Your task to perform on an android device: set default search engine in the chrome app Image 0: 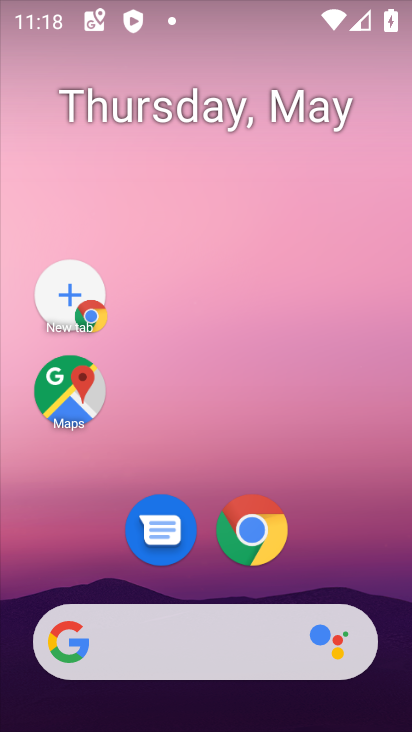
Step 0: drag from (300, 714) to (235, 207)
Your task to perform on an android device: set default search engine in the chrome app Image 1: 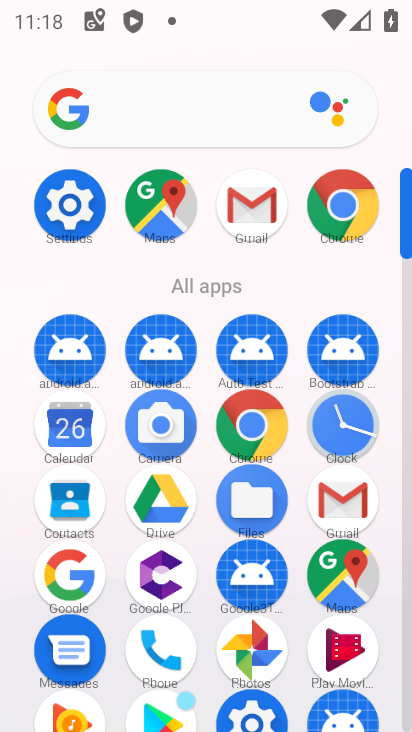
Step 1: click (328, 205)
Your task to perform on an android device: set default search engine in the chrome app Image 2: 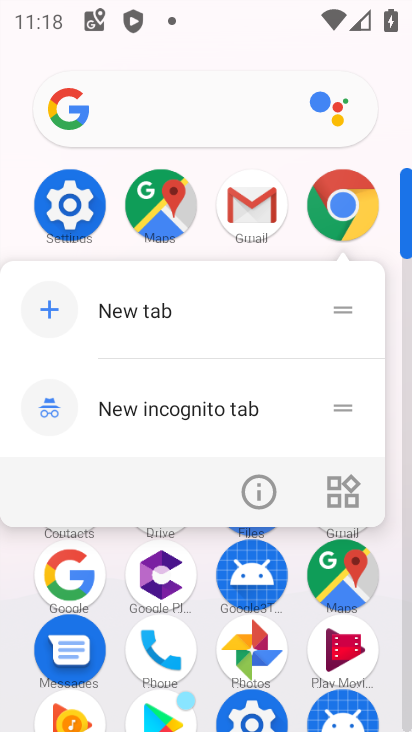
Step 2: click (316, 203)
Your task to perform on an android device: set default search engine in the chrome app Image 3: 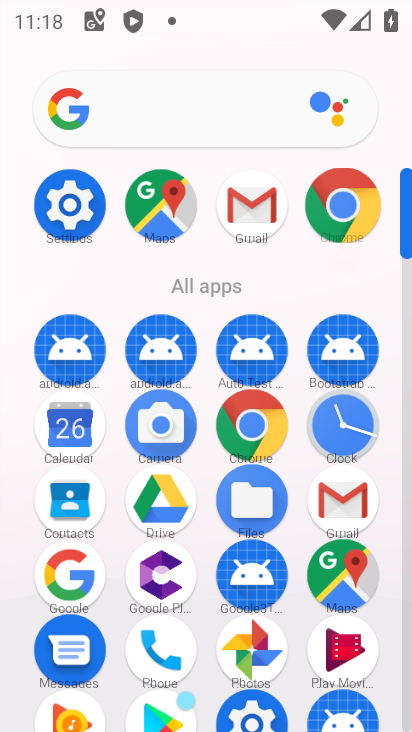
Step 3: click (330, 204)
Your task to perform on an android device: set default search engine in the chrome app Image 4: 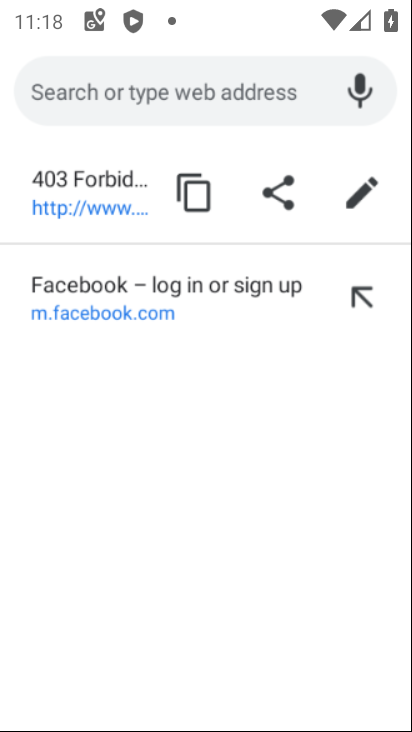
Step 4: click (330, 205)
Your task to perform on an android device: set default search engine in the chrome app Image 5: 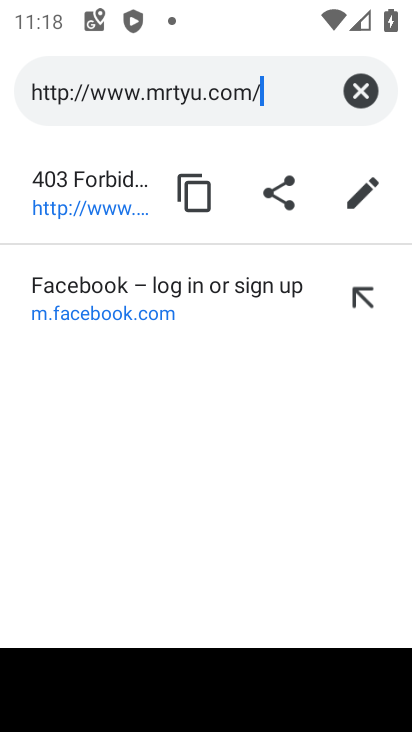
Step 5: press back button
Your task to perform on an android device: set default search engine in the chrome app Image 6: 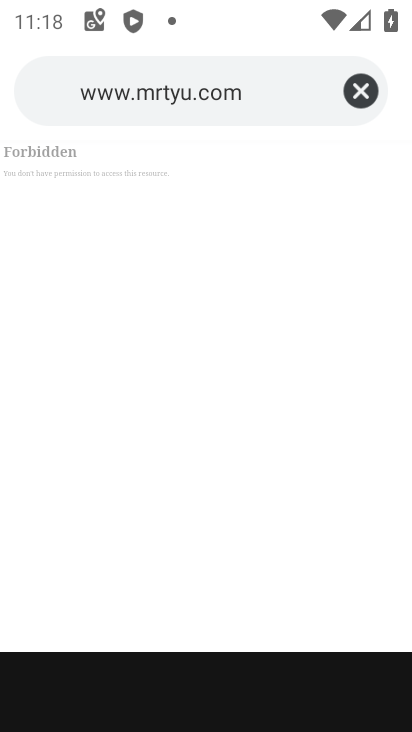
Step 6: press back button
Your task to perform on an android device: set default search engine in the chrome app Image 7: 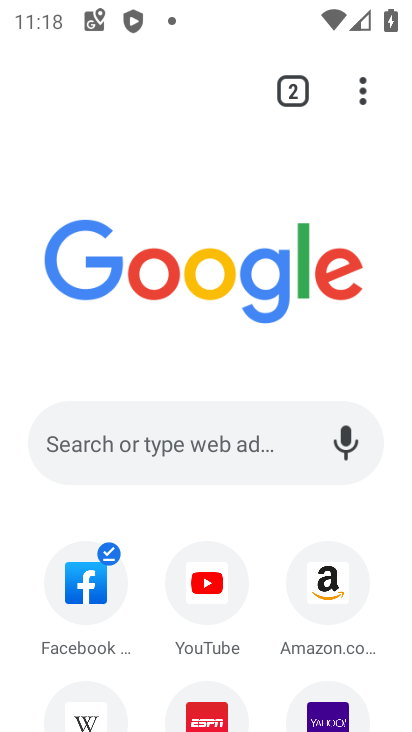
Step 7: drag from (353, 84) to (100, 546)
Your task to perform on an android device: set default search engine in the chrome app Image 8: 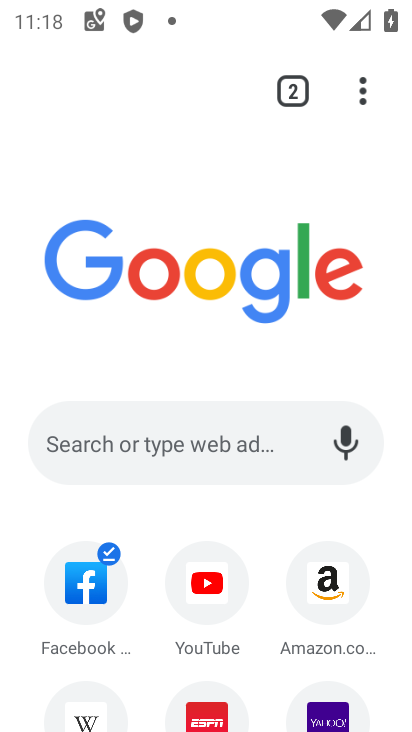
Step 8: click (96, 546)
Your task to perform on an android device: set default search engine in the chrome app Image 9: 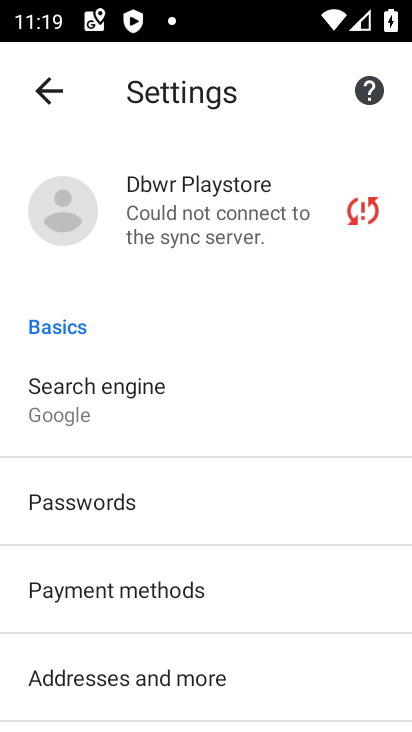
Step 9: click (63, 387)
Your task to perform on an android device: set default search engine in the chrome app Image 10: 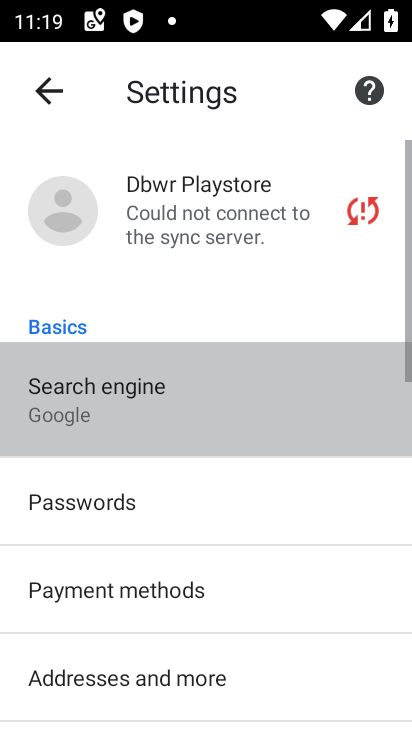
Step 10: click (74, 389)
Your task to perform on an android device: set default search engine in the chrome app Image 11: 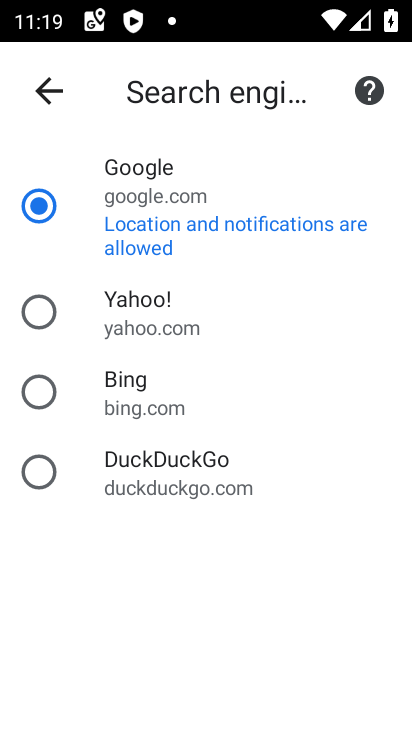
Step 11: drag from (77, 407) to (77, 596)
Your task to perform on an android device: set default search engine in the chrome app Image 12: 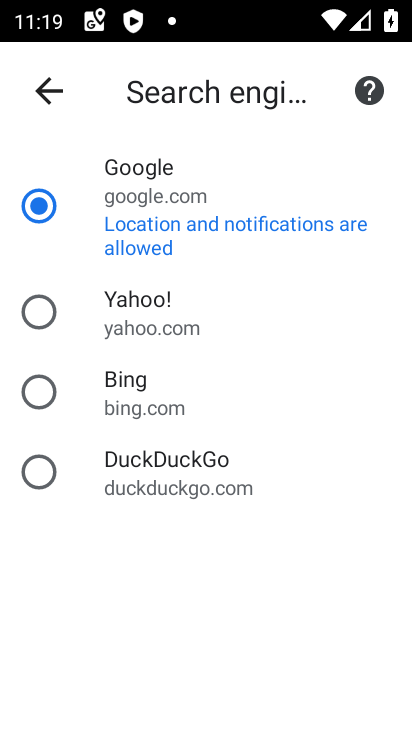
Step 12: click (40, 302)
Your task to perform on an android device: set default search engine in the chrome app Image 13: 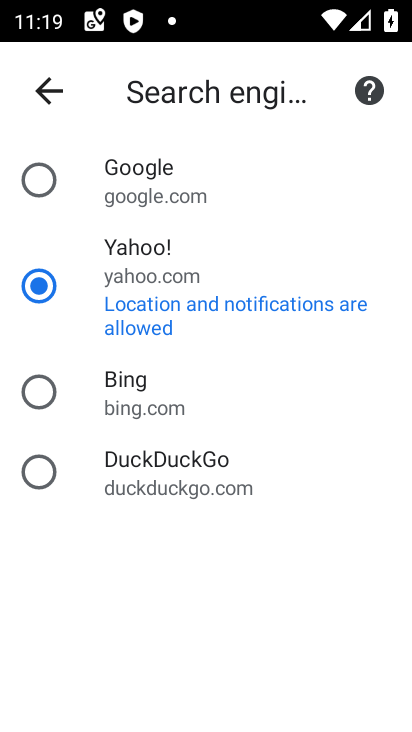
Step 13: task complete